Your task to perform on an android device: Find coffee shops on Maps Image 0: 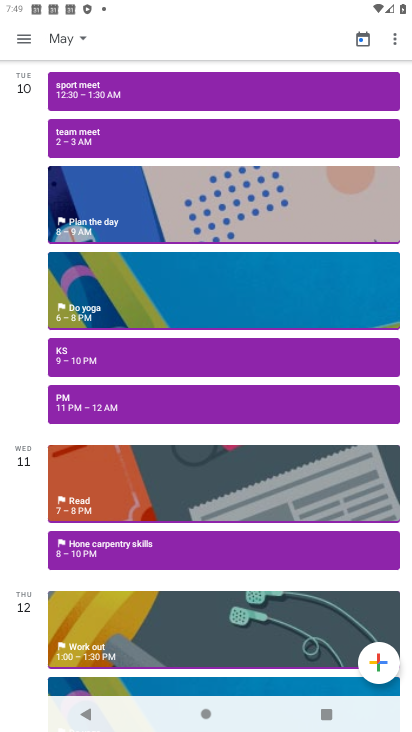
Step 0: press home button
Your task to perform on an android device: Find coffee shops on Maps Image 1: 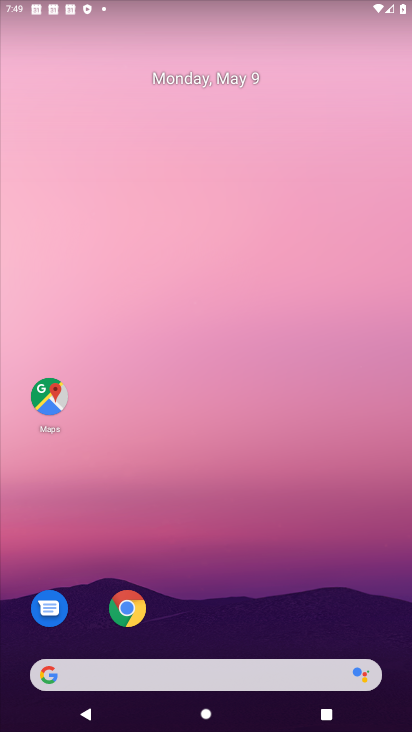
Step 1: click (40, 411)
Your task to perform on an android device: Find coffee shops on Maps Image 2: 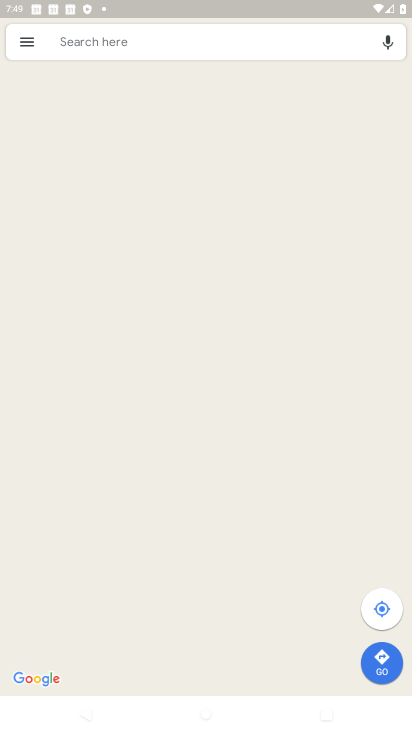
Step 2: click (225, 45)
Your task to perform on an android device: Find coffee shops on Maps Image 3: 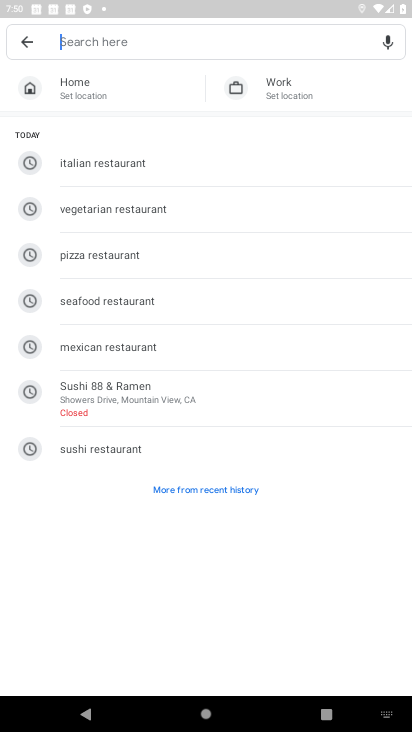
Step 3: type "coffee shops"
Your task to perform on an android device: Find coffee shops on Maps Image 4: 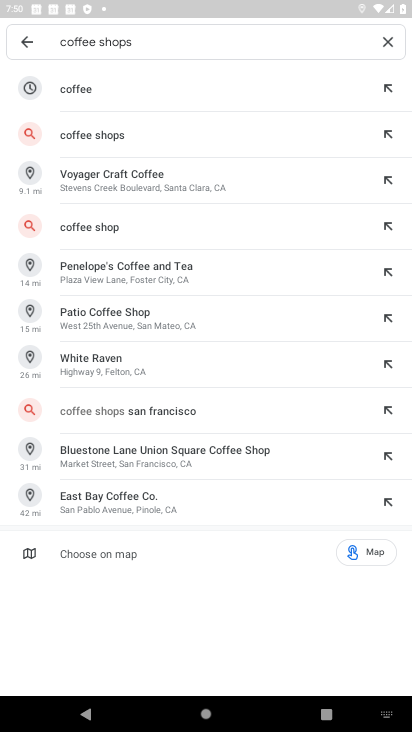
Step 4: click (199, 130)
Your task to perform on an android device: Find coffee shops on Maps Image 5: 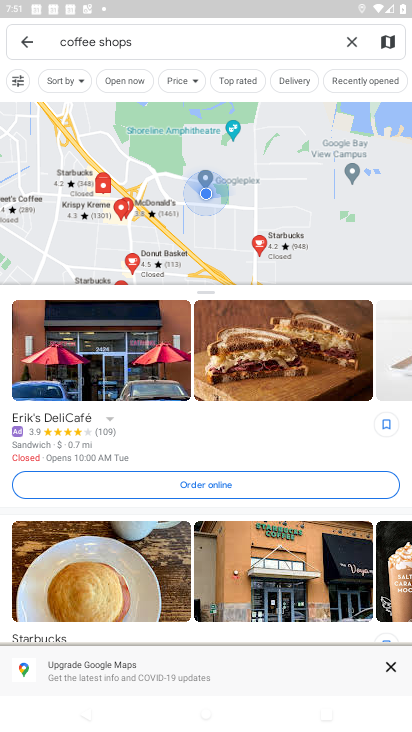
Step 5: task complete